Your task to perform on an android device: snooze an email in the gmail app Image 0: 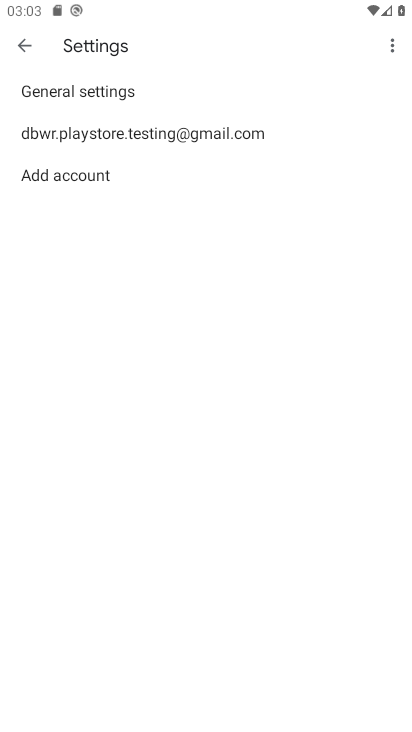
Step 0: click (23, 39)
Your task to perform on an android device: snooze an email in the gmail app Image 1: 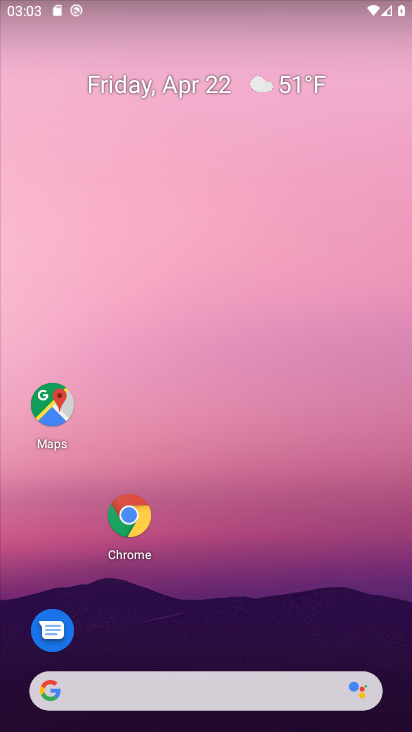
Step 1: drag from (363, 627) to (366, 74)
Your task to perform on an android device: snooze an email in the gmail app Image 2: 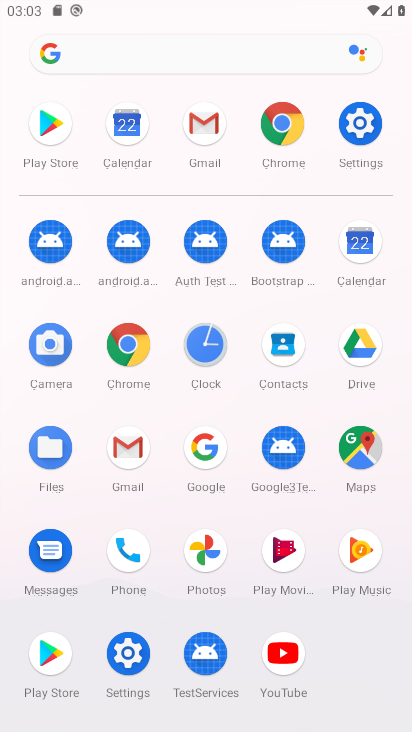
Step 2: click (128, 447)
Your task to perform on an android device: snooze an email in the gmail app Image 3: 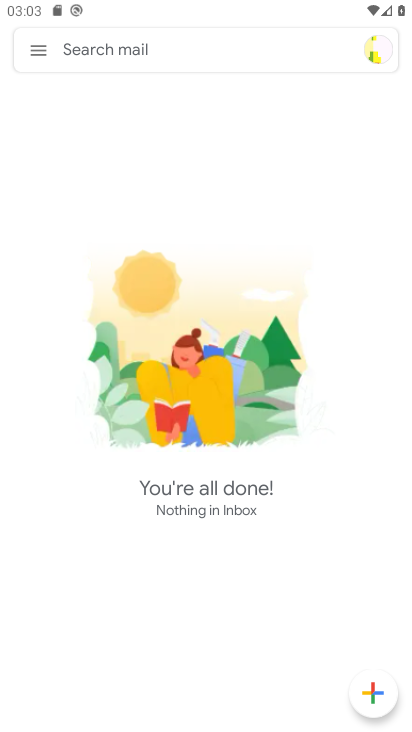
Step 3: click (39, 43)
Your task to perform on an android device: snooze an email in the gmail app Image 4: 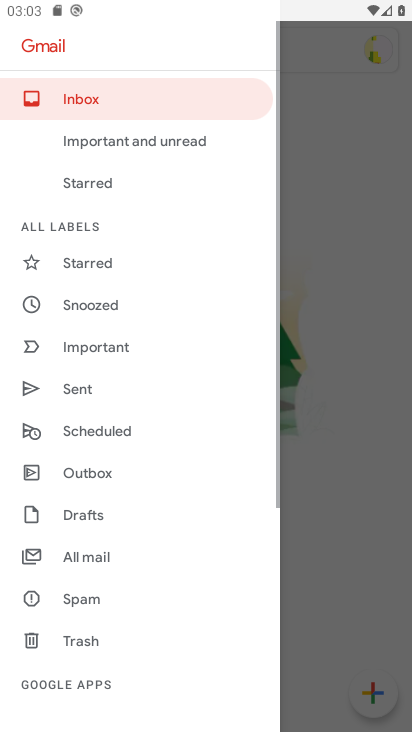
Step 4: click (89, 95)
Your task to perform on an android device: snooze an email in the gmail app Image 5: 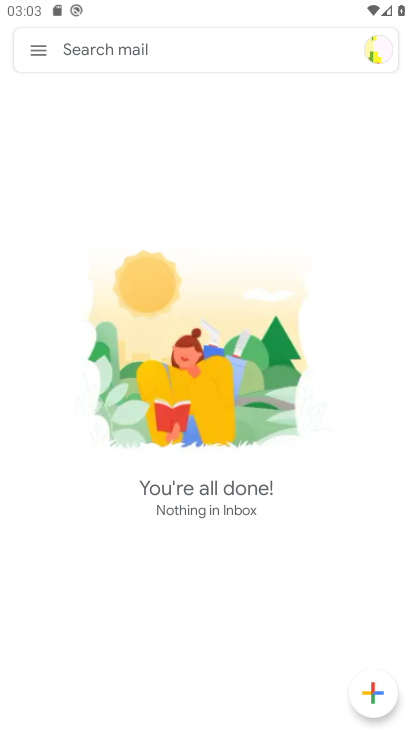
Step 5: task complete